Your task to perform on an android device: Open accessibility settings Image 0: 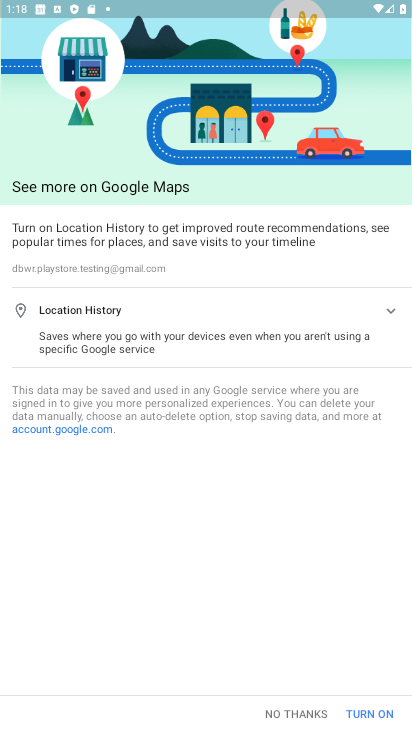
Step 0: press home button
Your task to perform on an android device: Open accessibility settings Image 1: 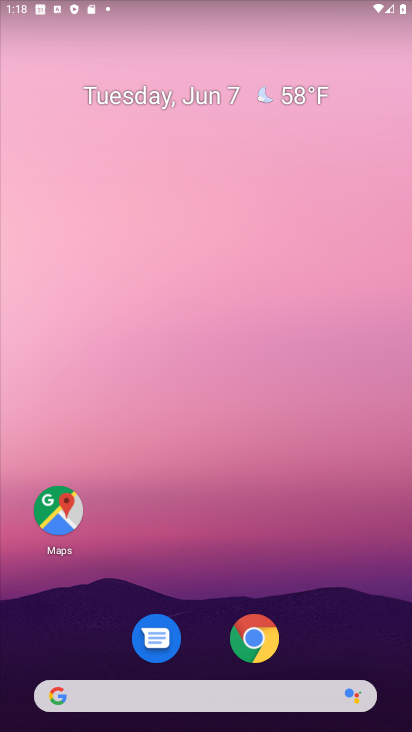
Step 1: drag from (201, 663) to (207, 200)
Your task to perform on an android device: Open accessibility settings Image 2: 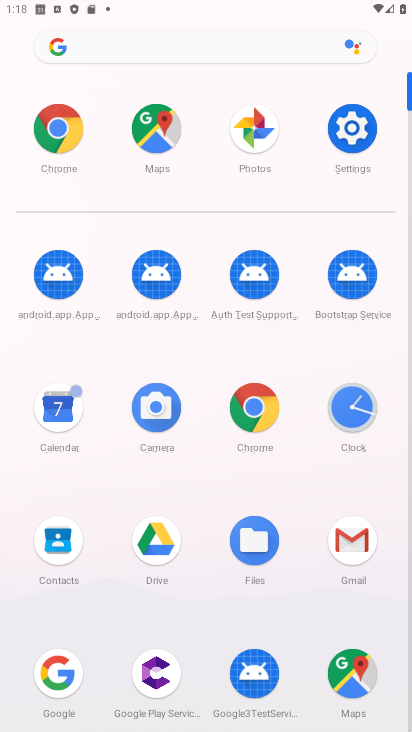
Step 2: click (353, 128)
Your task to perform on an android device: Open accessibility settings Image 3: 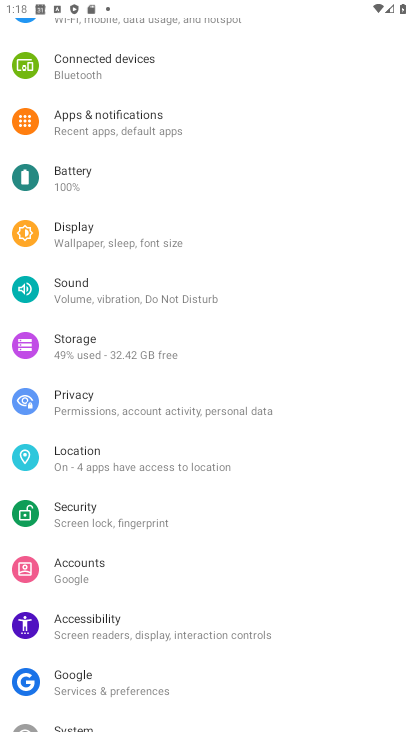
Step 3: click (129, 636)
Your task to perform on an android device: Open accessibility settings Image 4: 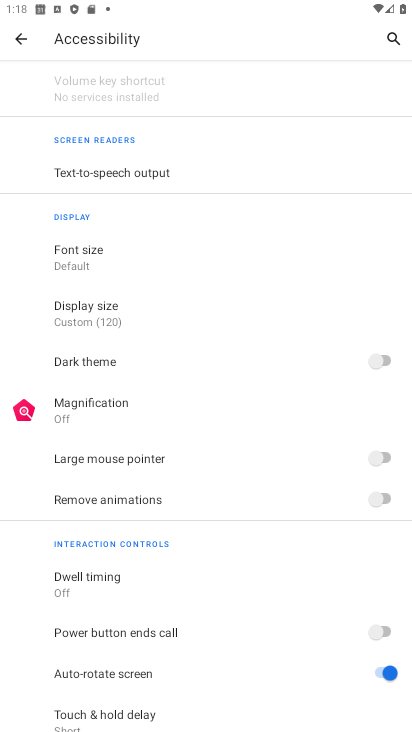
Step 4: task complete